Your task to perform on an android device: turn off translation in the chrome app Image 0: 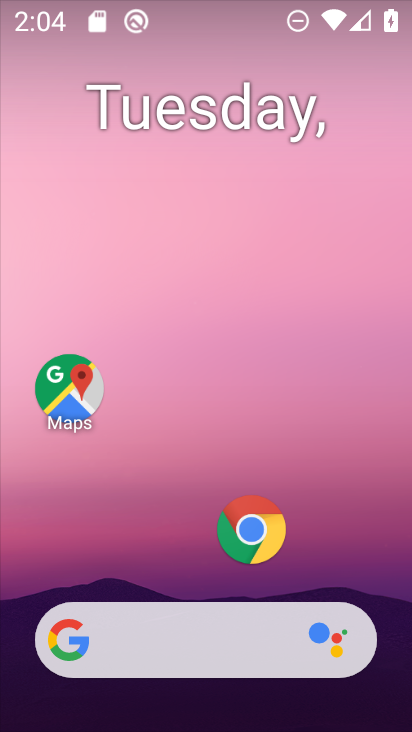
Step 0: drag from (267, 667) to (287, 22)
Your task to perform on an android device: turn off translation in the chrome app Image 1: 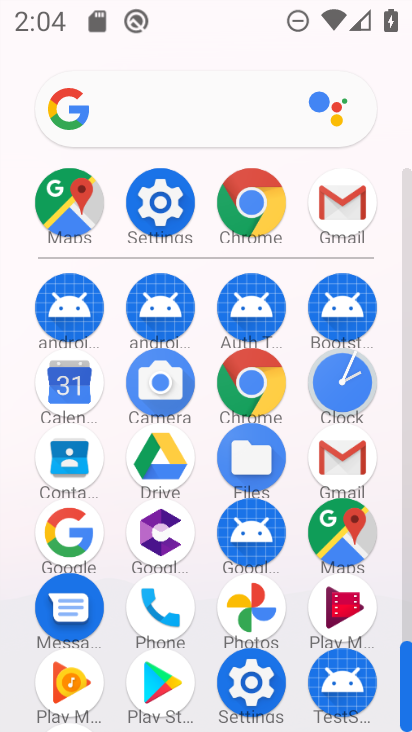
Step 1: click (261, 210)
Your task to perform on an android device: turn off translation in the chrome app Image 2: 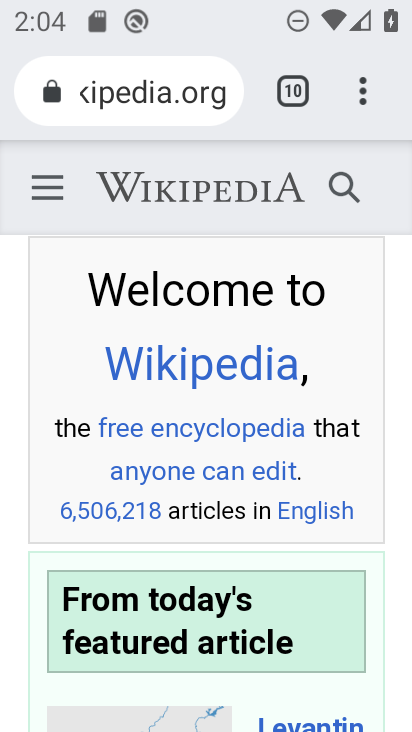
Step 2: click (368, 90)
Your task to perform on an android device: turn off translation in the chrome app Image 3: 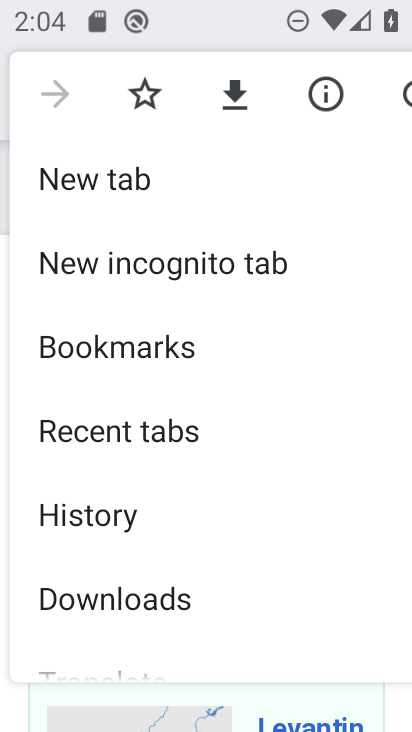
Step 3: drag from (142, 501) to (167, 150)
Your task to perform on an android device: turn off translation in the chrome app Image 4: 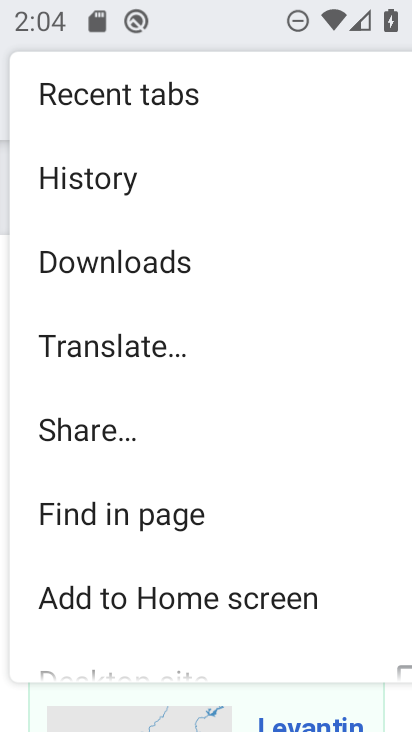
Step 4: drag from (93, 568) to (96, 345)
Your task to perform on an android device: turn off translation in the chrome app Image 5: 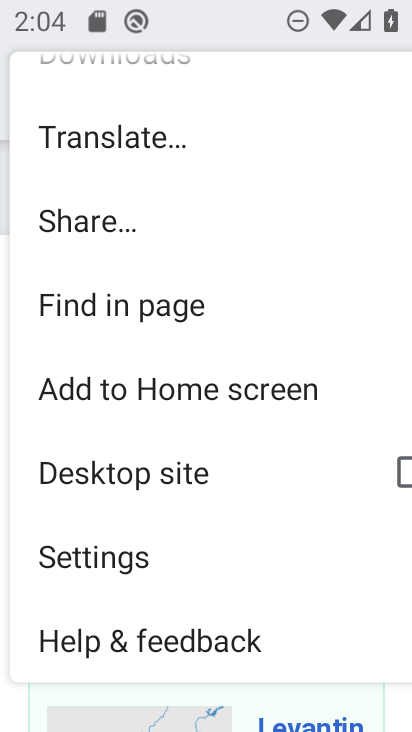
Step 5: click (92, 544)
Your task to perform on an android device: turn off translation in the chrome app Image 6: 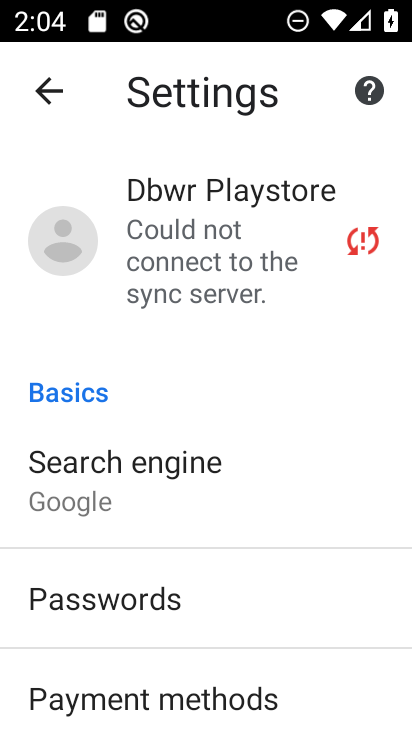
Step 6: drag from (118, 616) to (177, 439)
Your task to perform on an android device: turn off translation in the chrome app Image 7: 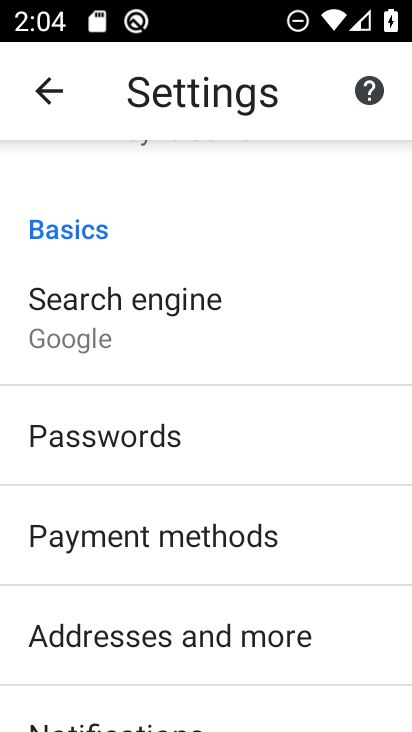
Step 7: drag from (169, 661) to (199, 354)
Your task to perform on an android device: turn off translation in the chrome app Image 8: 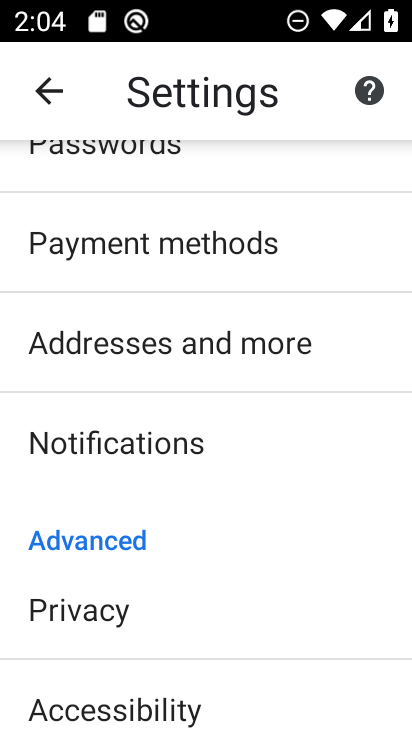
Step 8: drag from (116, 625) to (161, 438)
Your task to perform on an android device: turn off translation in the chrome app Image 9: 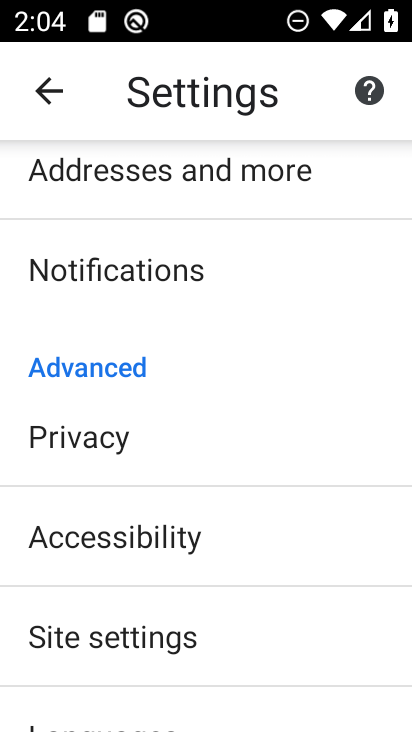
Step 9: drag from (103, 619) to (159, 449)
Your task to perform on an android device: turn off translation in the chrome app Image 10: 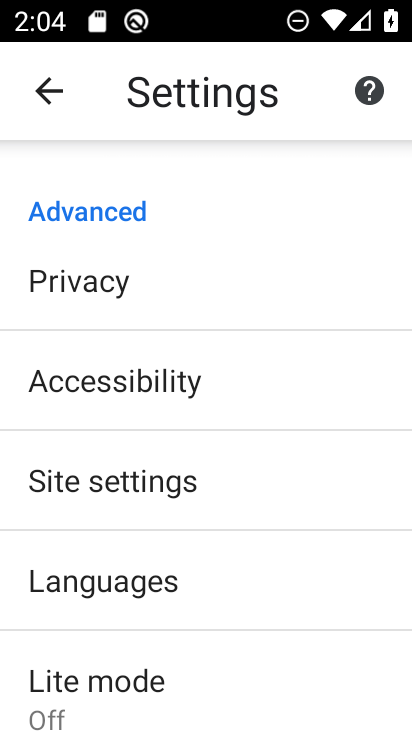
Step 10: click (90, 594)
Your task to perform on an android device: turn off translation in the chrome app Image 11: 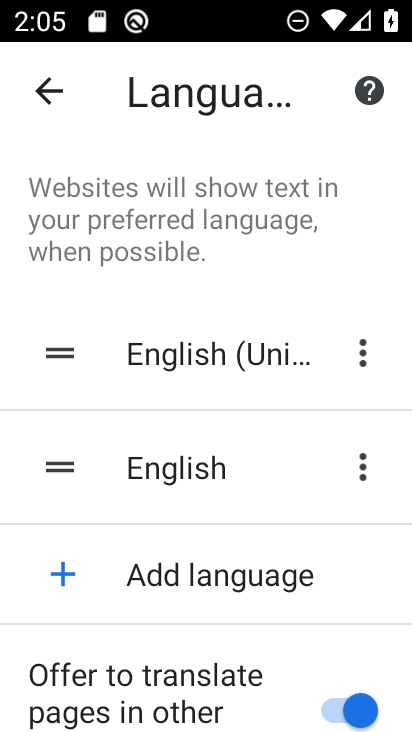
Step 11: click (343, 687)
Your task to perform on an android device: turn off translation in the chrome app Image 12: 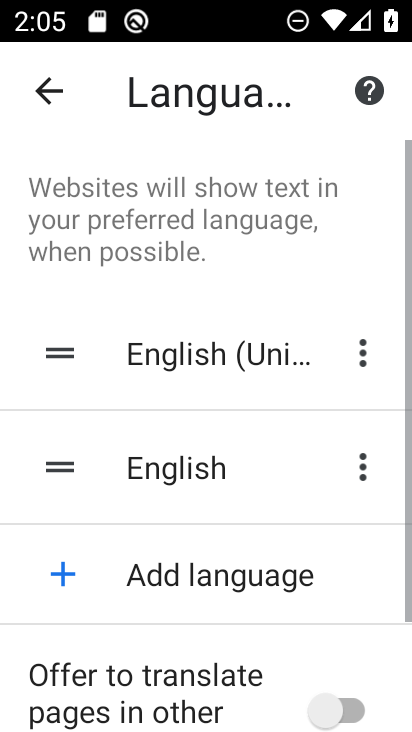
Step 12: task complete